Your task to perform on an android device: change notification settings in the gmail app Image 0: 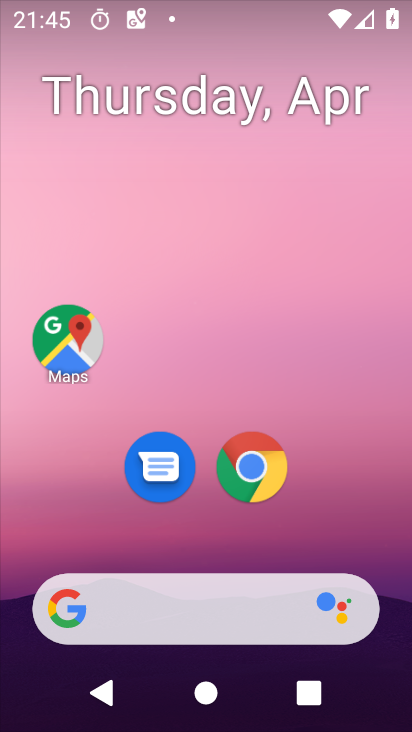
Step 0: drag from (199, 561) to (279, 7)
Your task to perform on an android device: change notification settings in the gmail app Image 1: 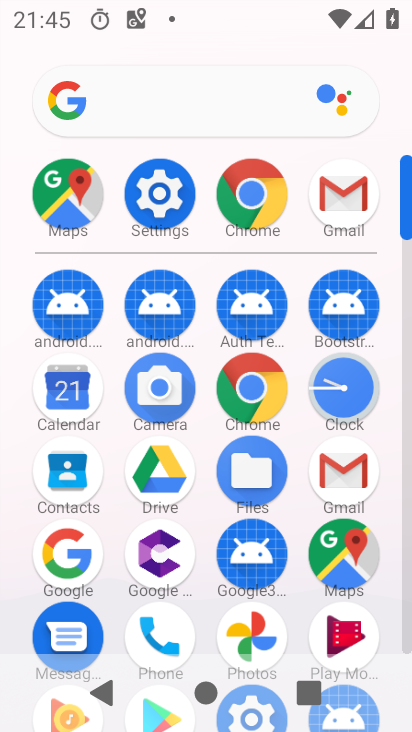
Step 1: click (352, 495)
Your task to perform on an android device: change notification settings in the gmail app Image 2: 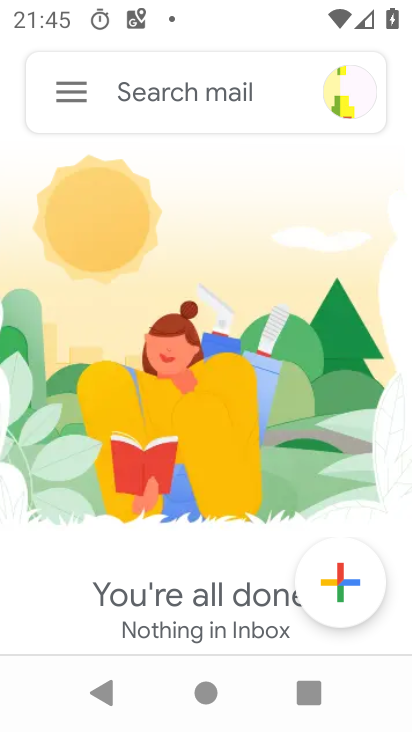
Step 2: click (68, 112)
Your task to perform on an android device: change notification settings in the gmail app Image 3: 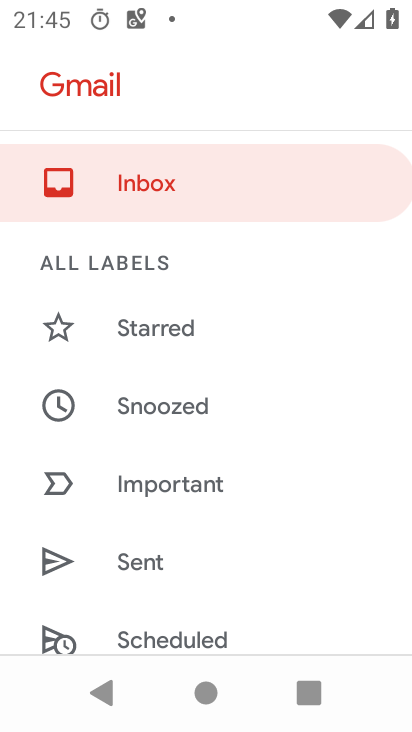
Step 3: drag from (79, 579) to (74, 35)
Your task to perform on an android device: change notification settings in the gmail app Image 4: 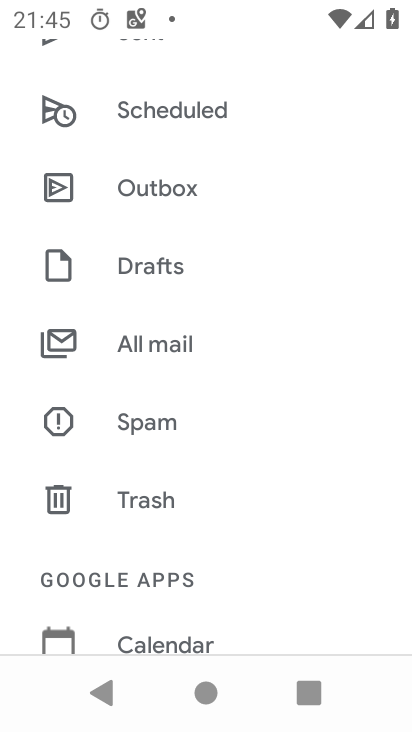
Step 4: drag from (182, 570) to (179, 65)
Your task to perform on an android device: change notification settings in the gmail app Image 5: 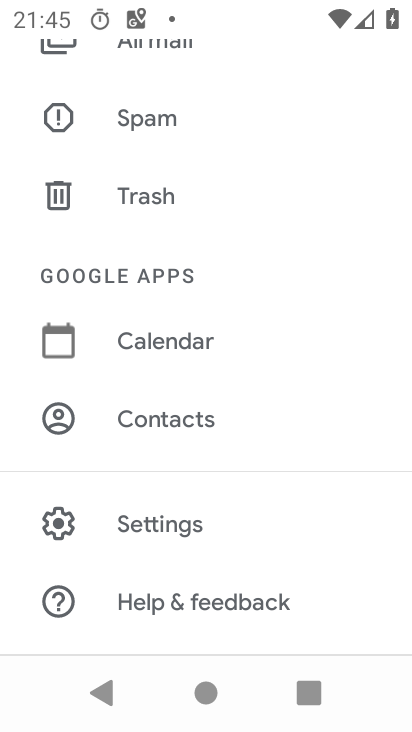
Step 5: click (128, 540)
Your task to perform on an android device: change notification settings in the gmail app Image 6: 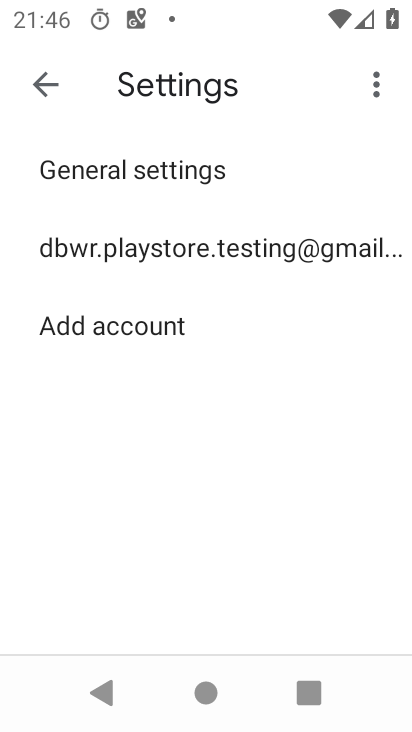
Step 6: click (61, 178)
Your task to perform on an android device: change notification settings in the gmail app Image 7: 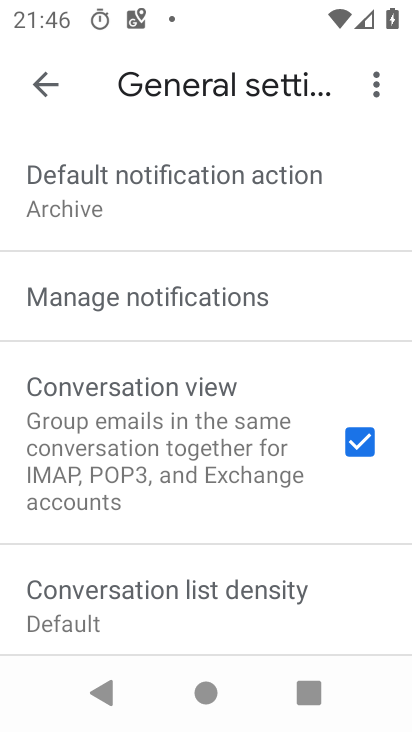
Step 7: click (112, 289)
Your task to perform on an android device: change notification settings in the gmail app Image 8: 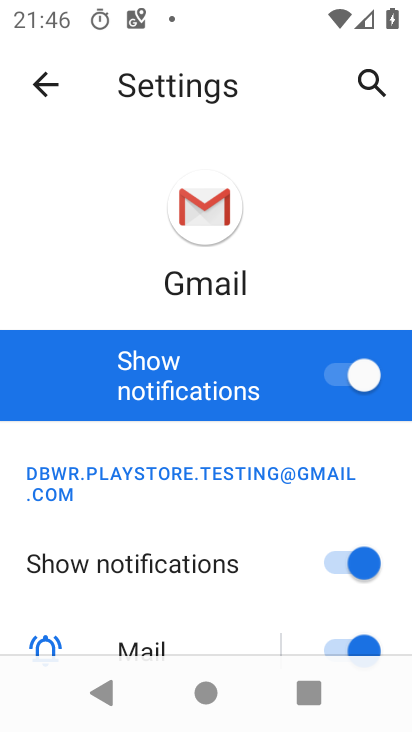
Step 8: click (346, 370)
Your task to perform on an android device: change notification settings in the gmail app Image 9: 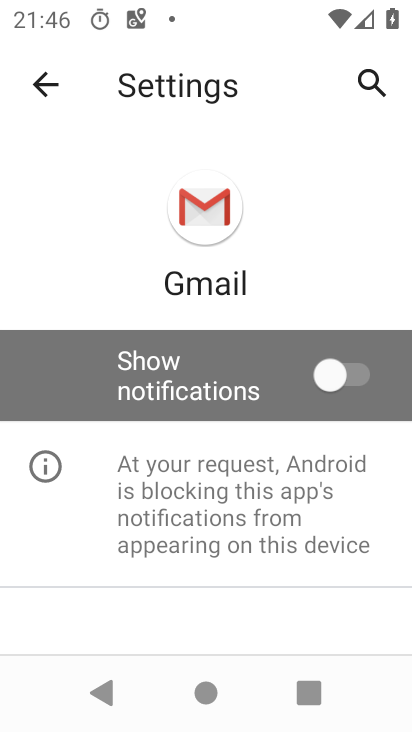
Step 9: task complete